Your task to perform on an android device: visit the assistant section in the google photos Image 0: 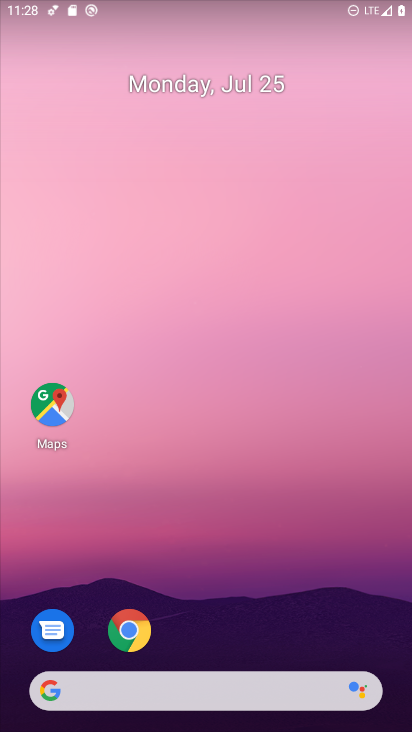
Step 0: drag from (256, 660) to (243, 30)
Your task to perform on an android device: visit the assistant section in the google photos Image 1: 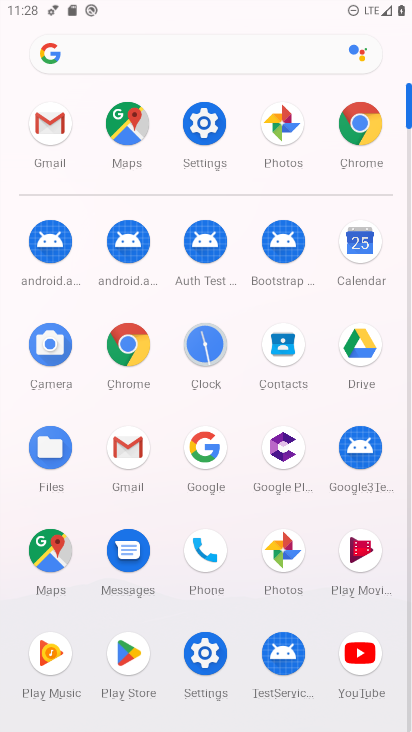
Step 1: click (286, 130)
Your task to perform on an android device: visit the assistant section in the google photos Image 2: 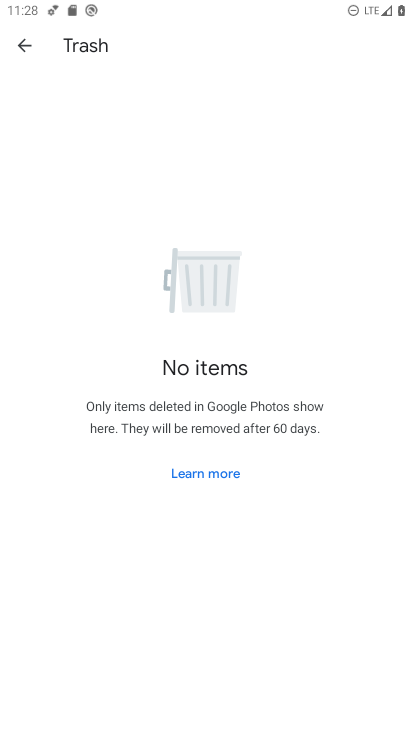
Step 2: click (22, 47)
Your task to perform on an android device: visit the assistant section in the google photos Image 3: 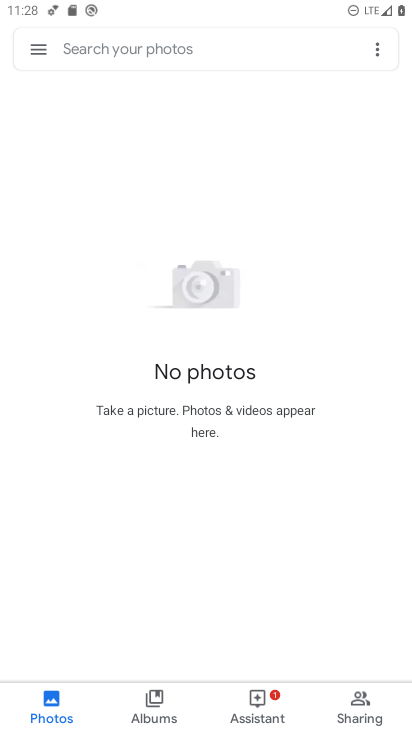
Step 3: click (267, 721)
Your task to perform on an android device: visit the assistant section in the google photos Image 4: 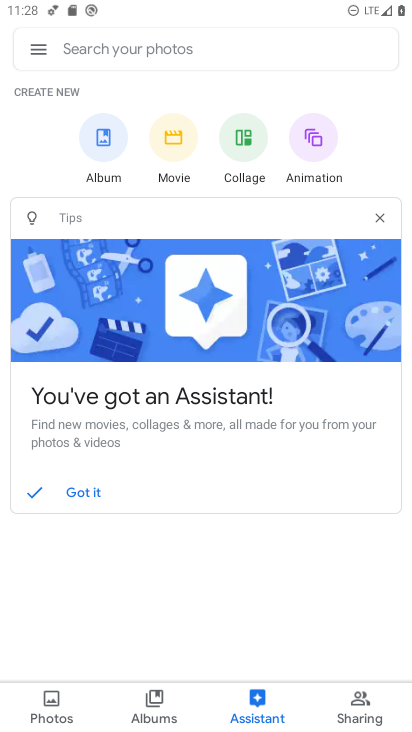
Step 4: click (82, 493)
Your task to perform on an android device: visit the assistant section in the google photos Image 5: 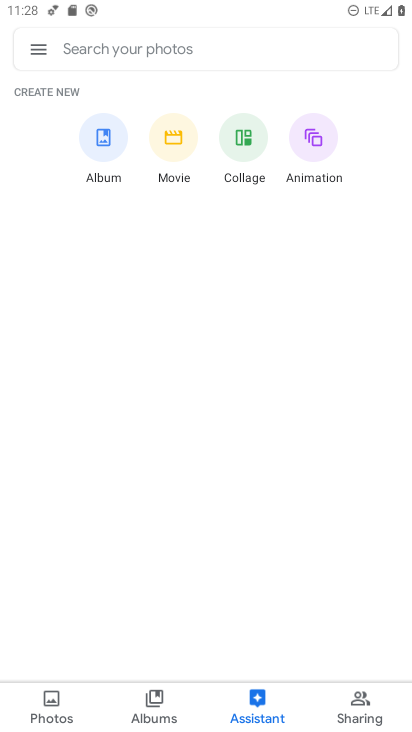
Step 5: task complete